Your task to perform on an android device: Open network settings Image 0: 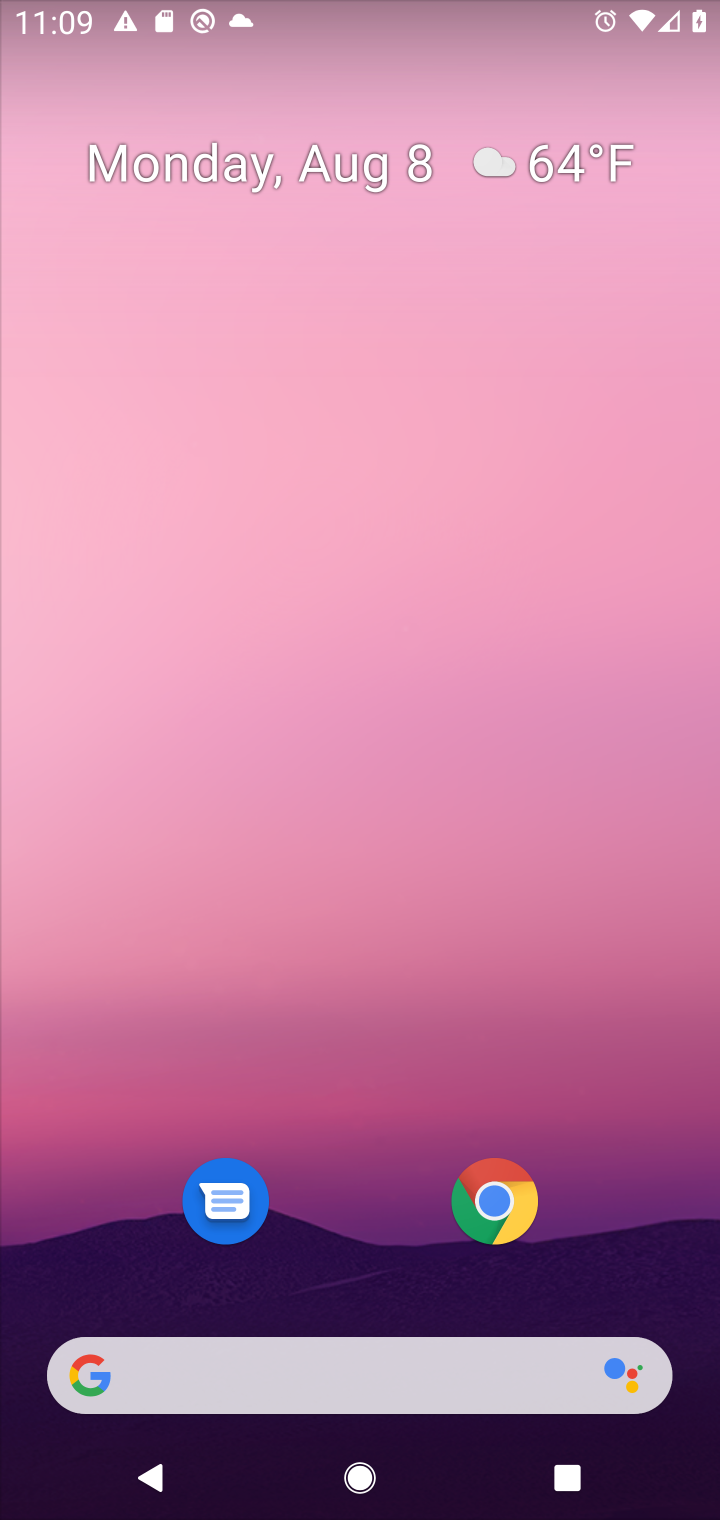
Step 0: press home button
Your task to perform on an android device: Open network settings Image 1: 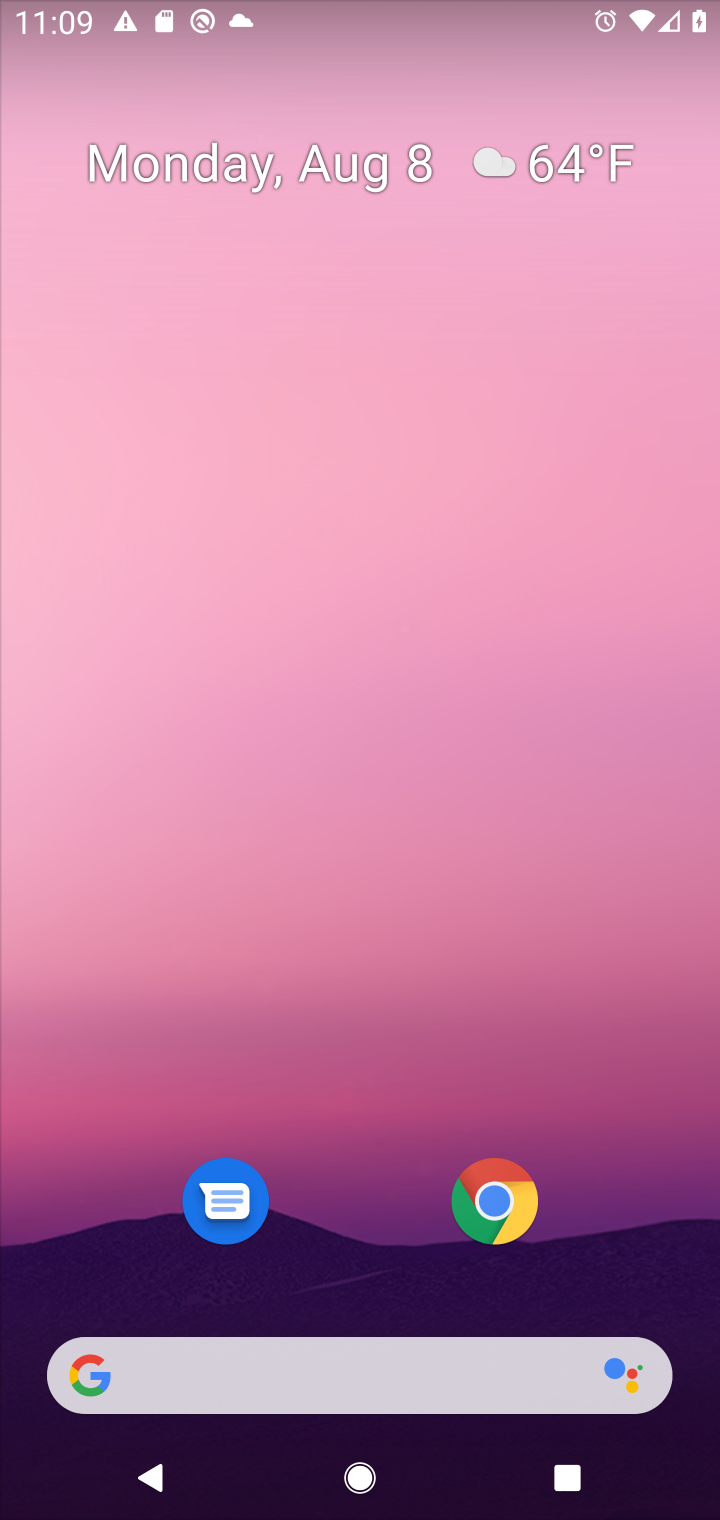
Step 1: drag from (568, 1229) to (604, 234)
Your task to perform on an android device: Open network settings Image 2: 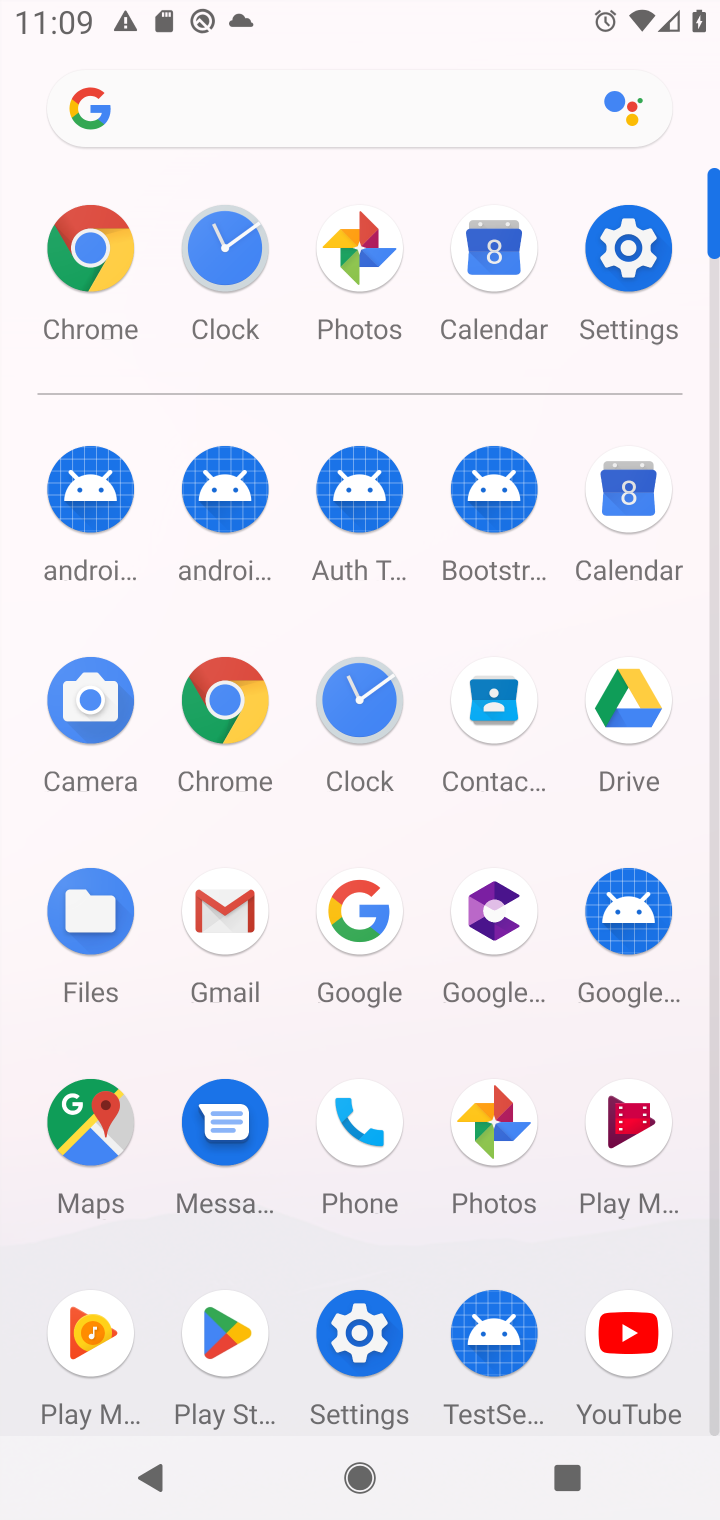
Step 2: click (635, 253)
Your task to perform on an android device: Open network settings Image 3: 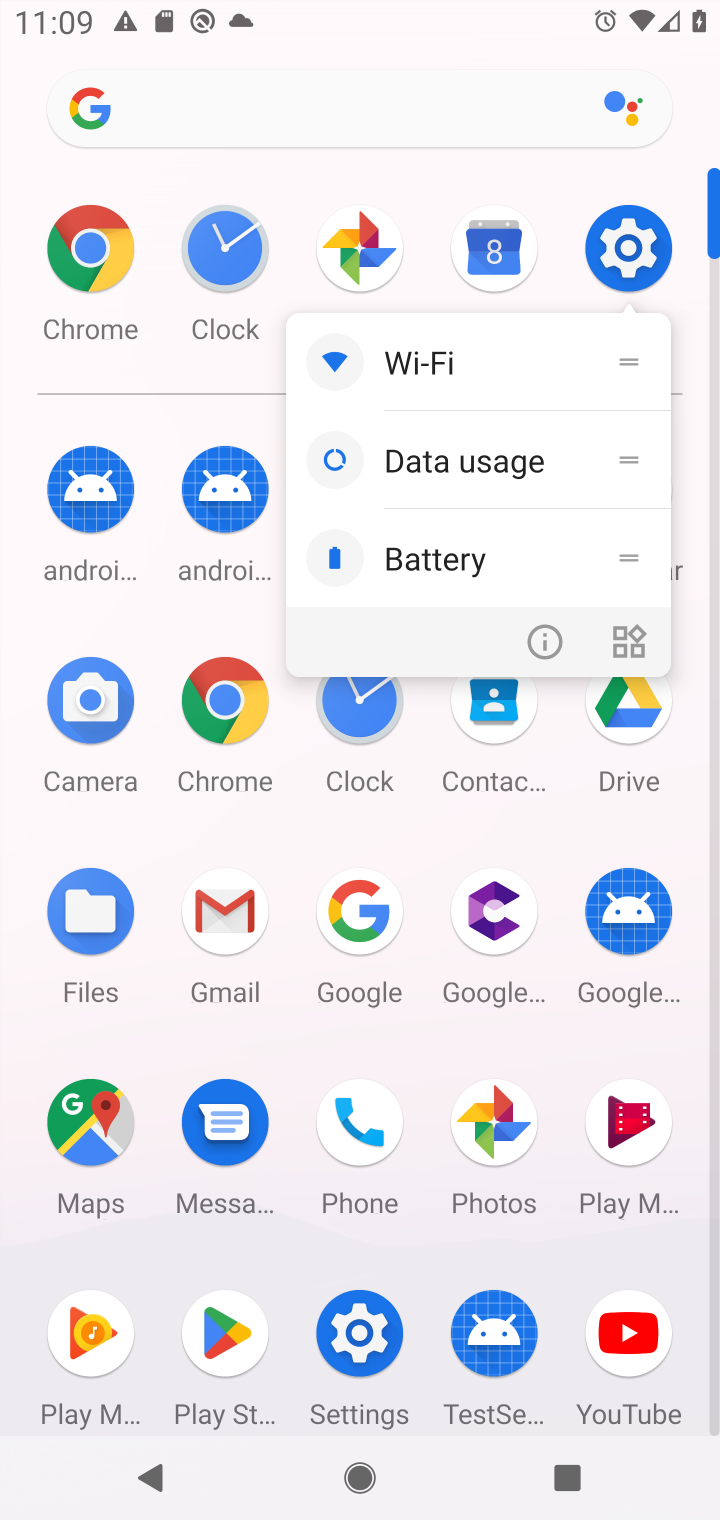
Step 3: click (590, 235)
Your task to perform on an android device: Open network settings Image 4: 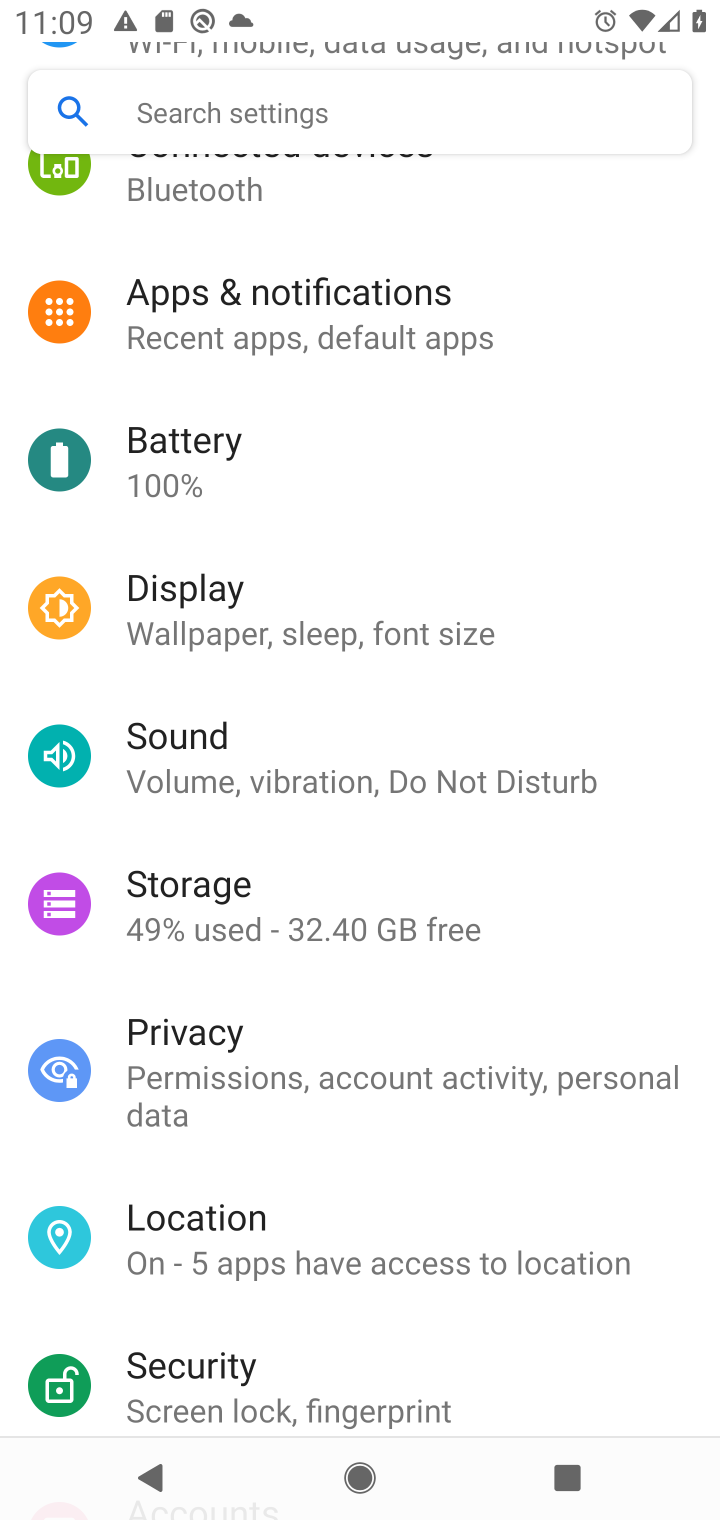
Step 4: drag from (632, 377) to (634, 507)
Your task to perform on an android device: Open network settings Image 5: 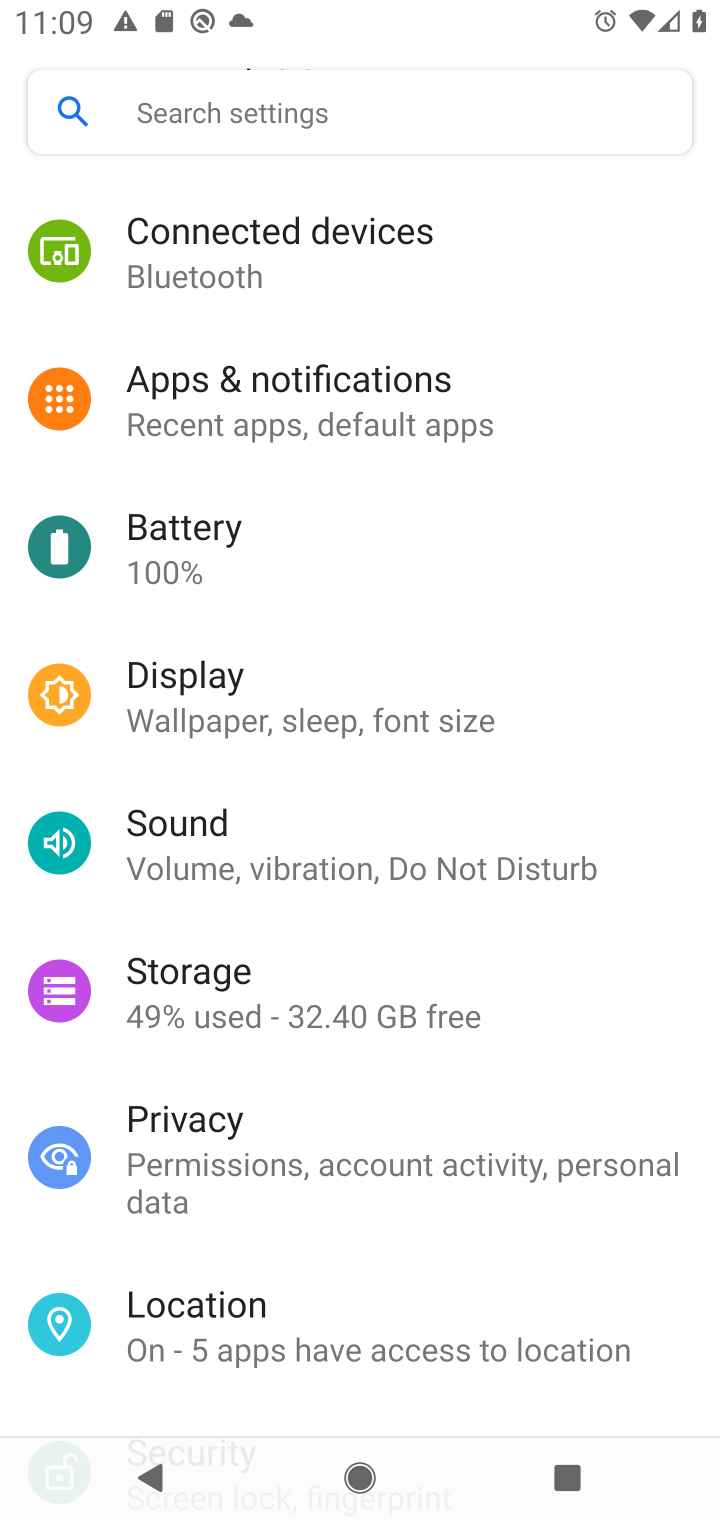
Step 5: drag from (647, 334) to (663, 623)
Your task to perform on an android device: Open network settings Image 6: 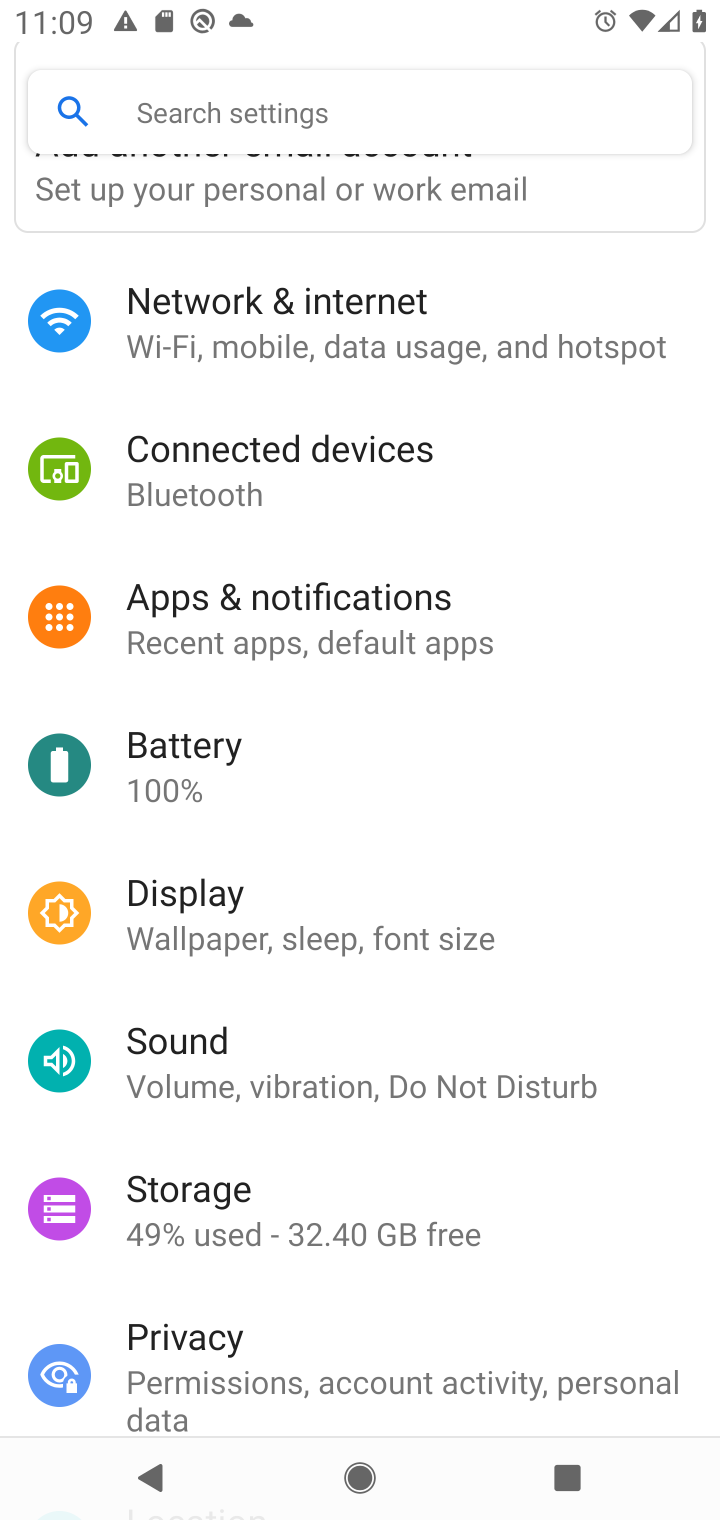
Step 6: drag from (646, 483) to (625, 724)
Your task to perform on an android device: Open network settings Image 7: 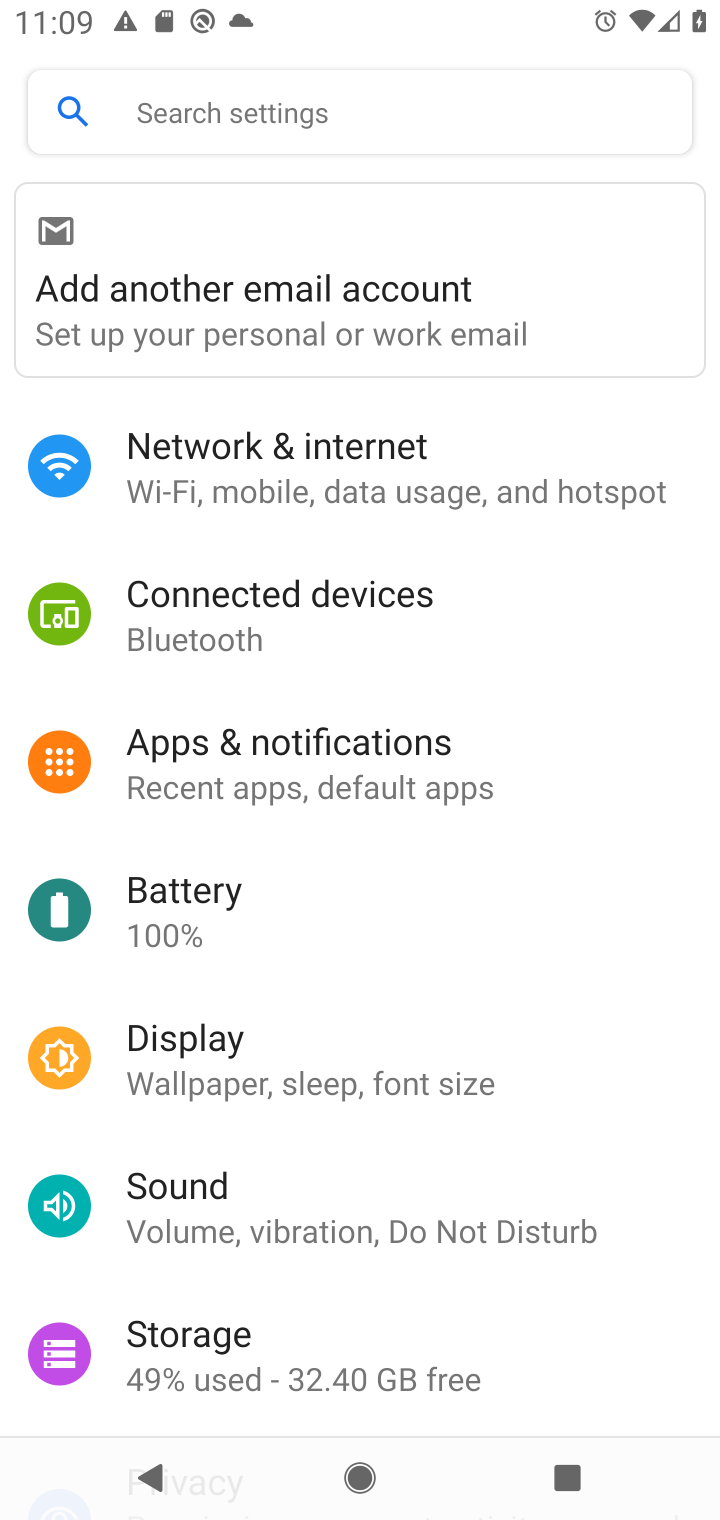
Step 7: click (485, 465)
Your task to perform on an android device: Open network settings Image 8: 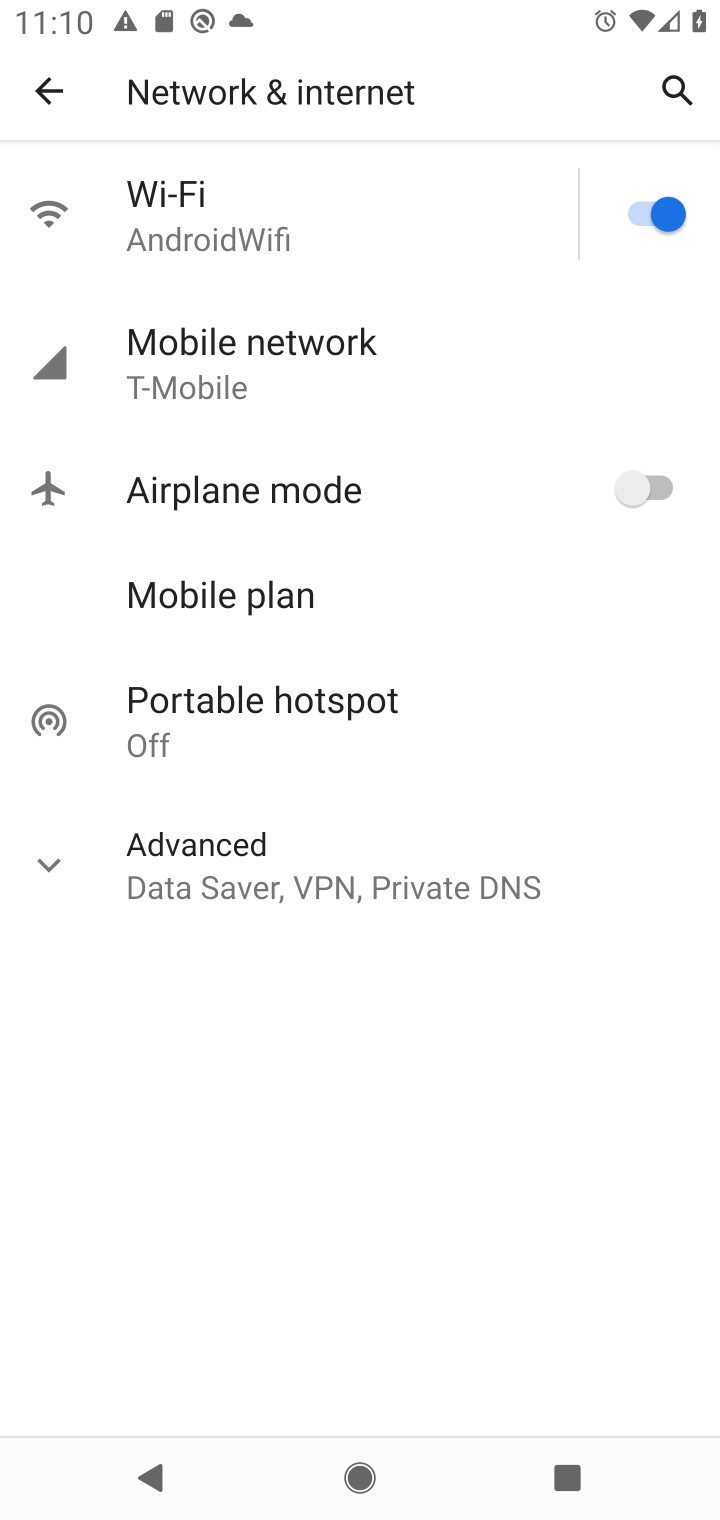
Step 8: task complete